Your task to perform on an android device: Open calendar and show me the first week of next month Image 0: 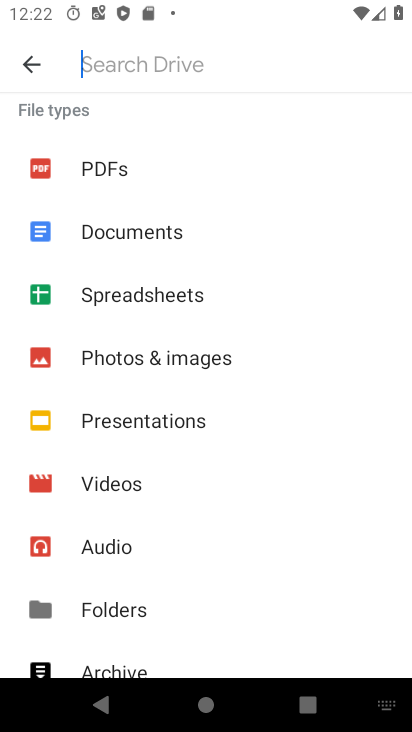
Step 0: press home button
Your task to perform on an android device: Open calendar and show me the first week of next month Image 1: 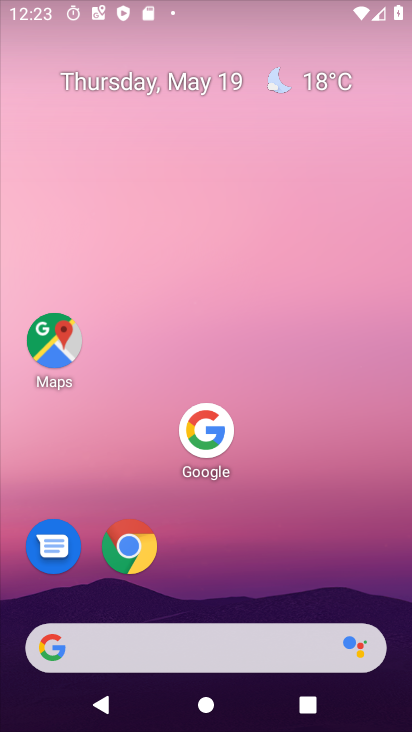
Step 1: drag from (233, 505) to (219, 124)
Your task to perform on an android device: Open calendar and show me the first week of next month Image 2: 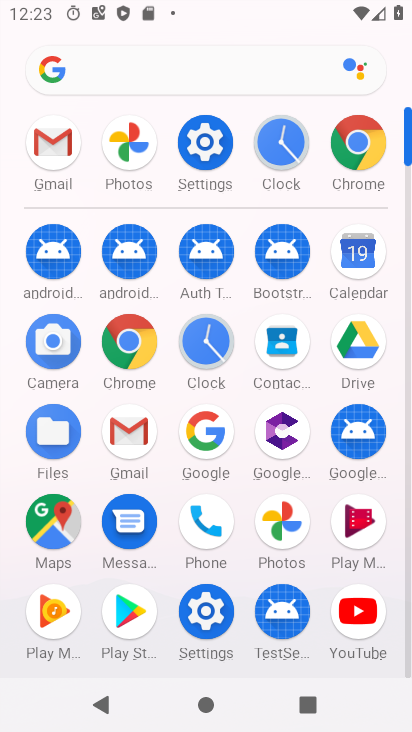
Step 2: click (349, 262)
Your task to perform on an android device: Open calendar and show me the first week of next month Image 3: 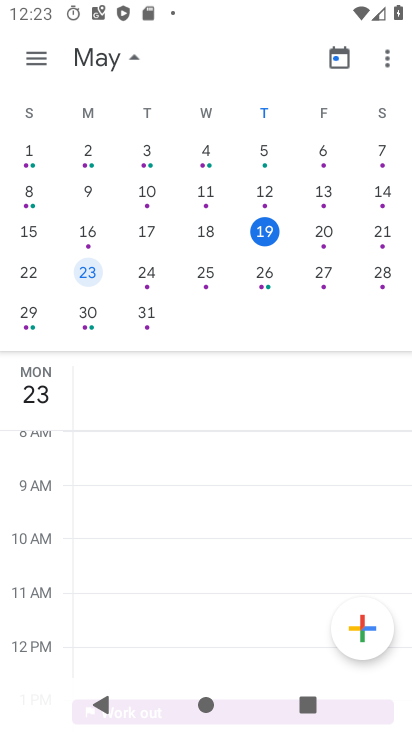
Step 3: drag from (372, 329) to (0, 242)
Your task to perform on an android device: Open calendar and show me the first week of next month Image 4: 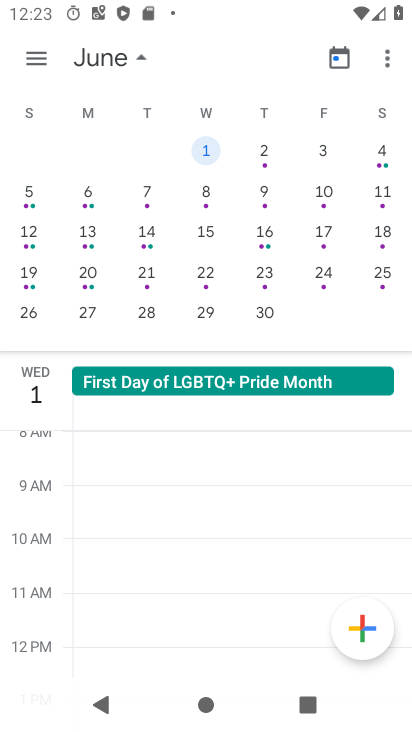
Step 4: click (315, 156)
Your task to perform on an android device: Open calendar and show me the first week of next month Image 5: 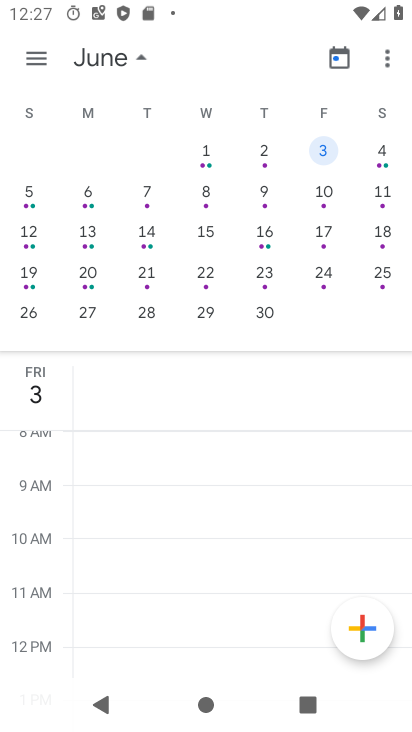
Step 5: task complete